Your task to perform on an android device: open a bookmark in the chrome app Image 0: 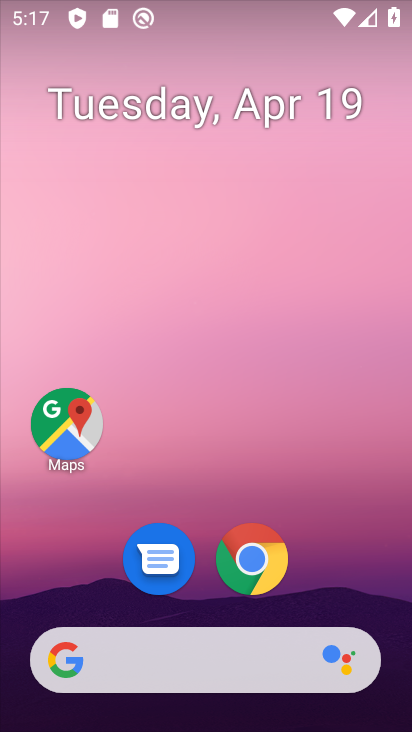
Step 0: click (256, 578)
Your task to perform on an android device: open a bookmark in the chrome app Image 1: 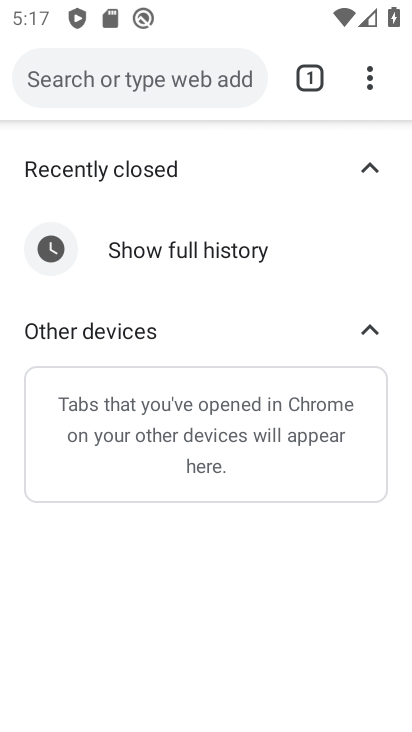
Step 1: click (373, 83)
Your task to perform on an android device: open a bookmark in the chrome app Image 2: 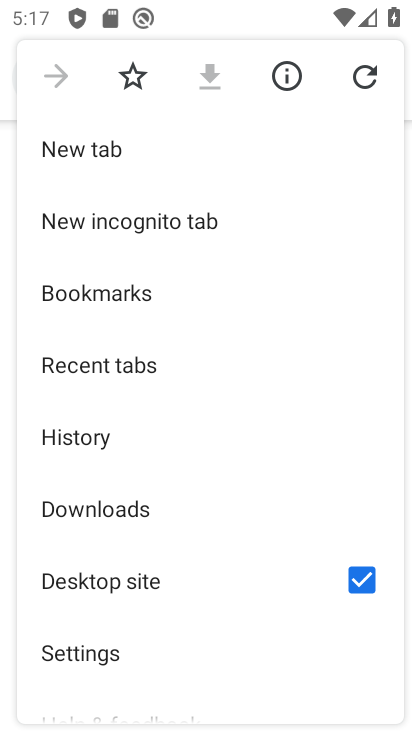
Step 2: click (164, 306)
Your task to perform on an android device: open a bookmark in the chrome app Image 3: 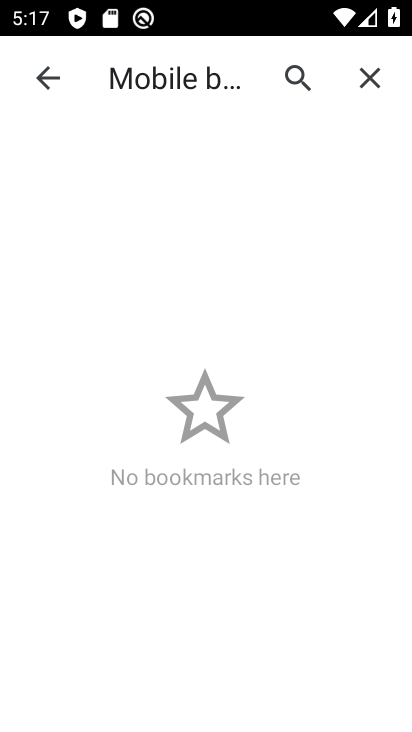
Step 3: task complete